Your task to perform on an android device: Open Chrome and go to settings Image 0: 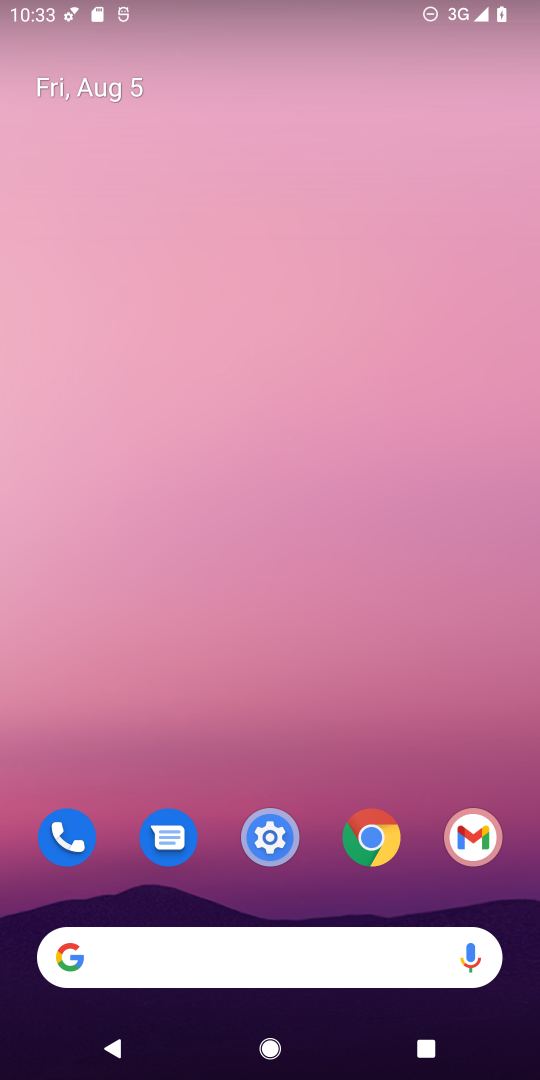
Step 0: click (376, 829)
Your task to perform on an android device: Open Chrome and go to settings Image 1: 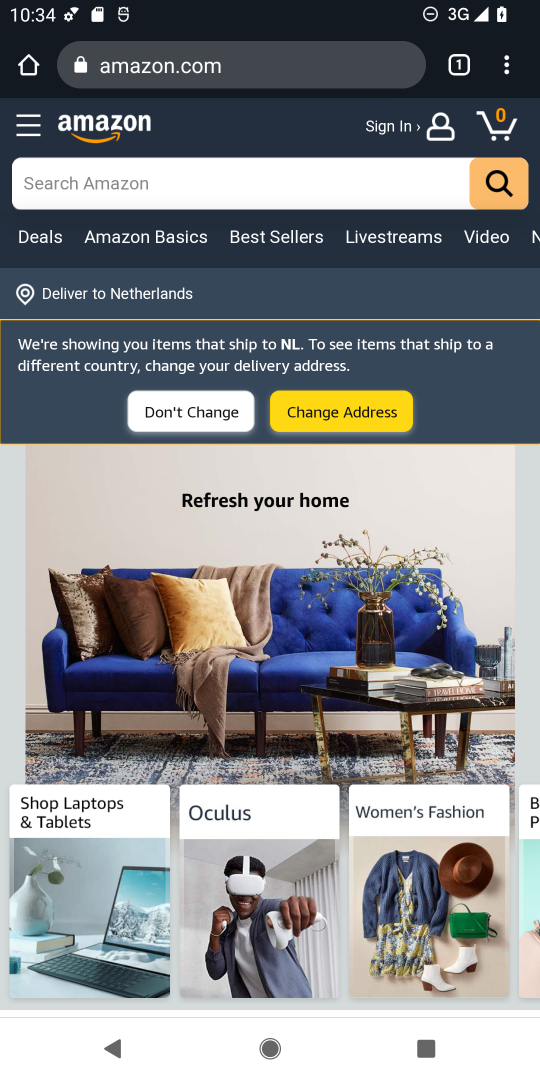
Step 1: click (513, 68)
Your task to perform on an android device: Open Chrome and go to settings Image 2: 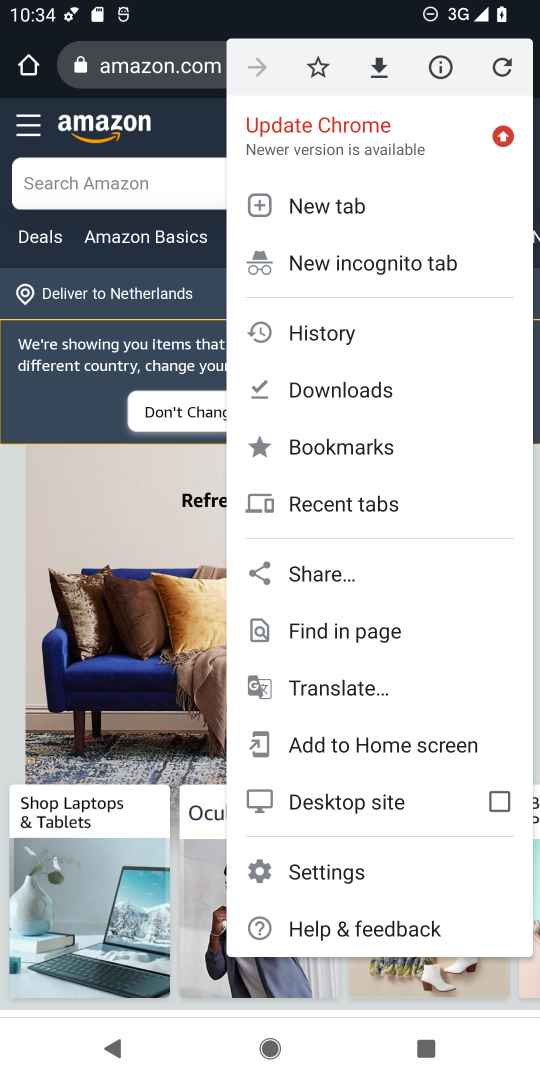
Step 2: click (337, 863)
Your task to perform on an android device: Open Chrome and go to settings Image 3: 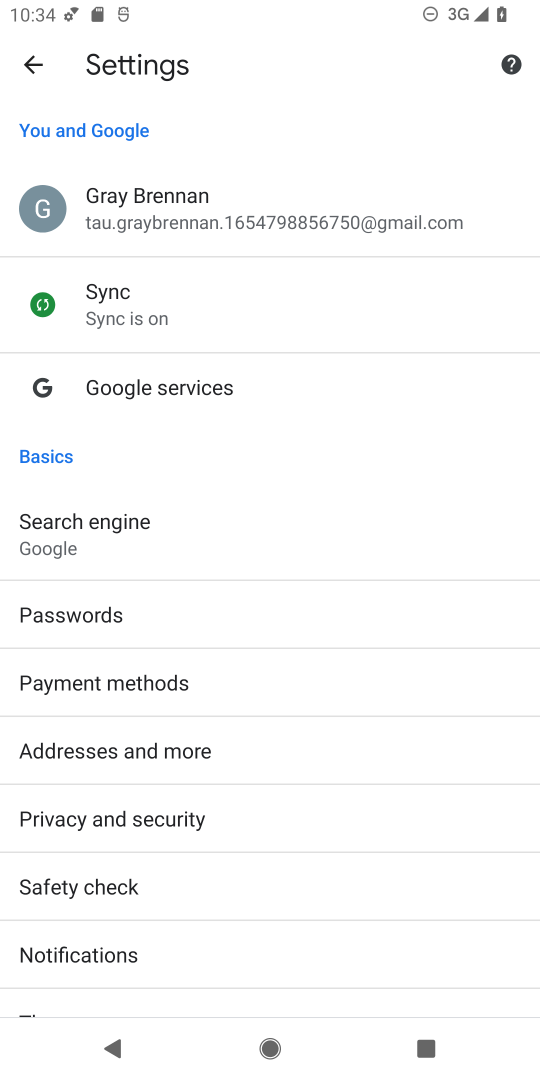
Step 3: task complete